Your task to perform on an android device: Open Youtube and go to "Your channel" Image 0: 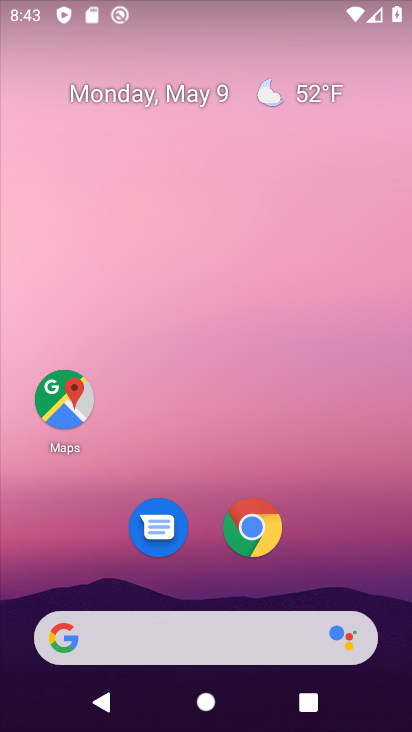
Step 0: drag from (345, 520) to (342, 144)
Your task to perform on an android device: Open Youtube and go to "Your channel" Image 1: 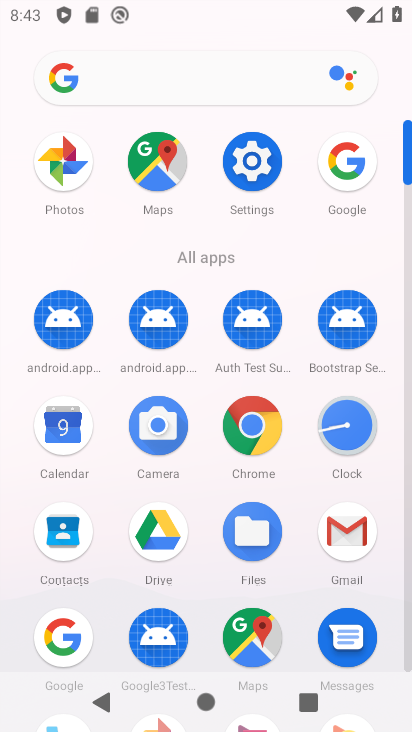
Step 1: drag from (289, 592) to (315, 241)
Your task to perform on an android device: Open Youtube and go to "Your channel" Image 2: 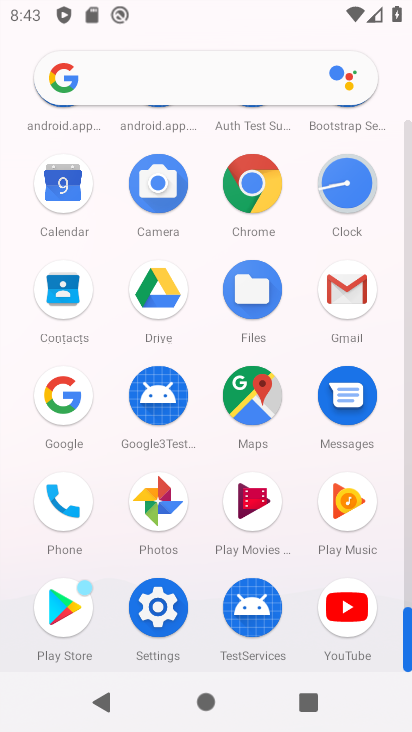
Step 2: click (359, 636)
Your task to perform on an android device: Open Youtube and go to "Your channel" Image 3: 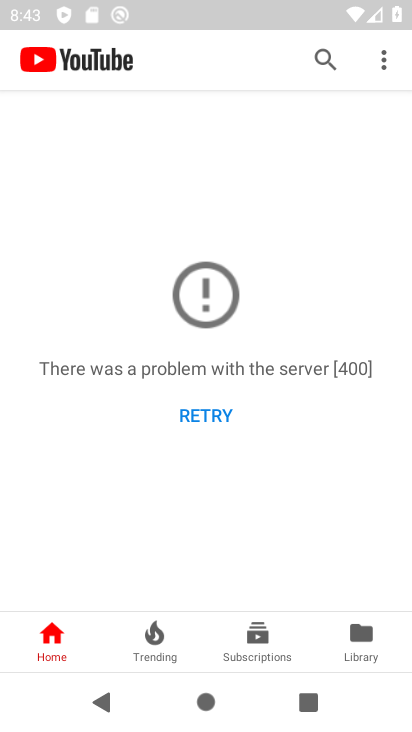
Step 3: click (386, 71)
Your task to perform on an android device: Open Youtube and go to "Your channel" Image 4: 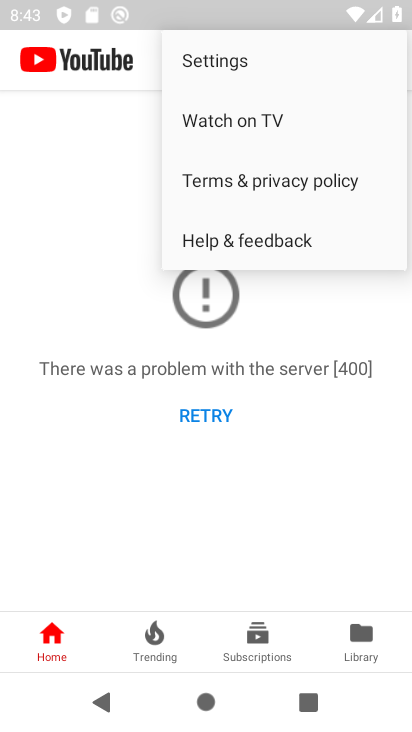
Step 4: task complete